Your task to perform on an android device: Do I have any events today? Image 0: 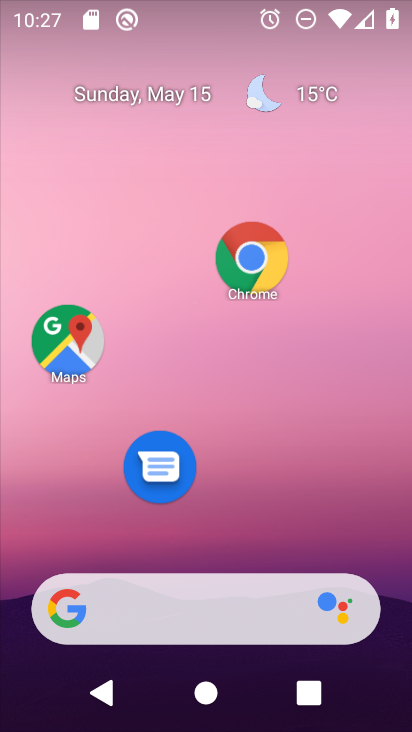
Step 0: click (83, 102)
Your task to perform on an android device: Do I have any events today? Image 1: 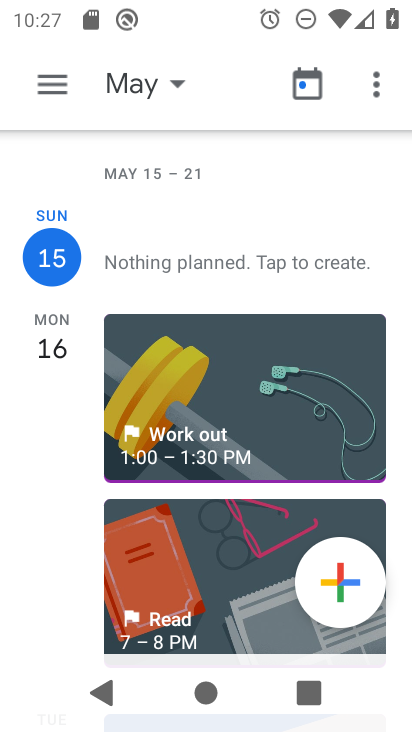
Step 1: task complete